Your task to perform on an android device: see creations saved in the google photos Image 0: 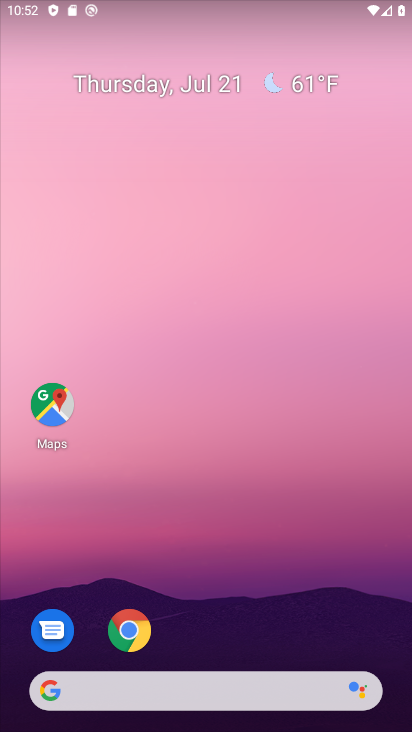
Step 0: drag from (172, 672) to (184, 274)
Your task to perform on an android device: see creations saved in the google photos Image 1: 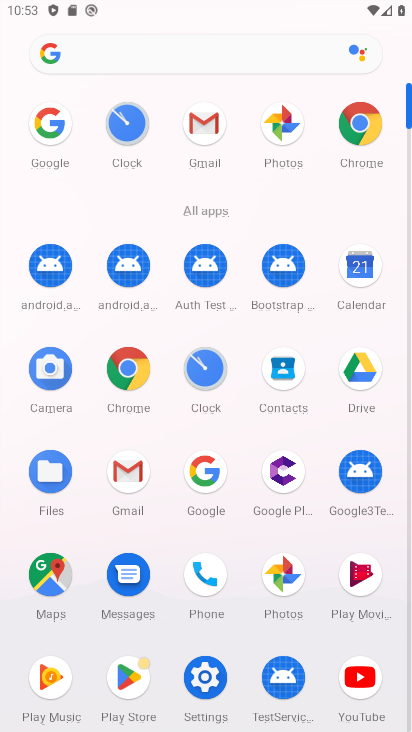
Step 1: click (262, 576)
Your task to perform on an android device: see creations saved in the google photos Image 2: 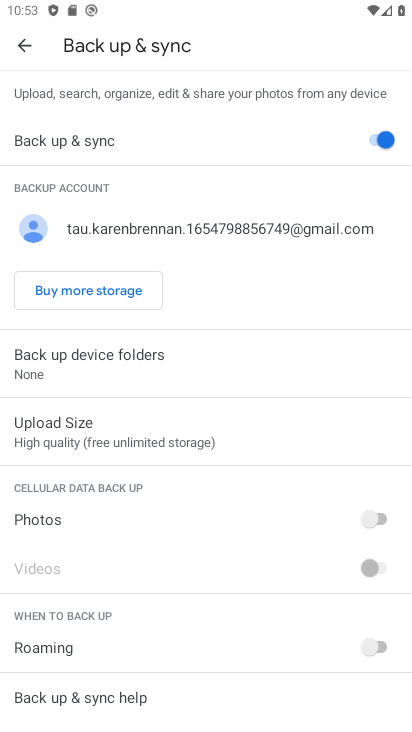
Step 2: click (22, 43)
Your task to perform on an android device: see creations saved in the google photos Image 3: 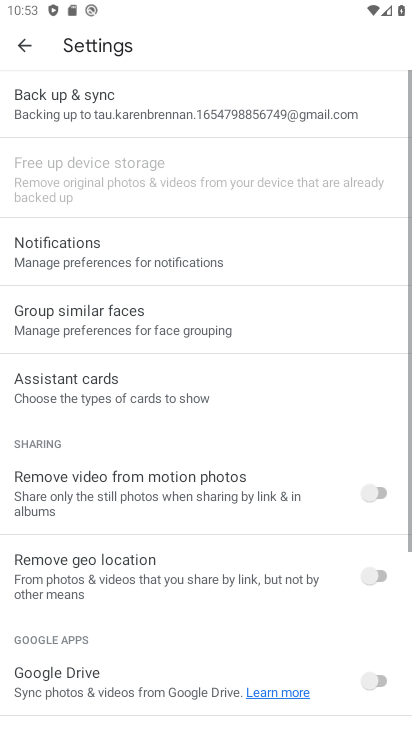
Step 3: click (21, 45)
Your task to perform on an android device: see creations saved in the google photos Image 4: 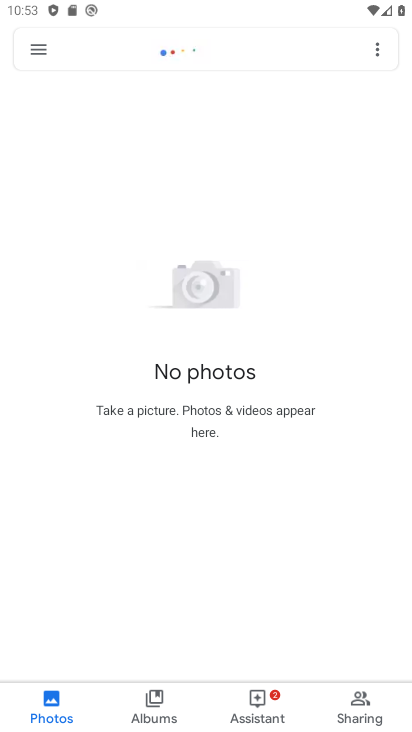
Step 4: click (139, 686)
Your task to perform on an android device: see creations saved in the google photos Image 5: 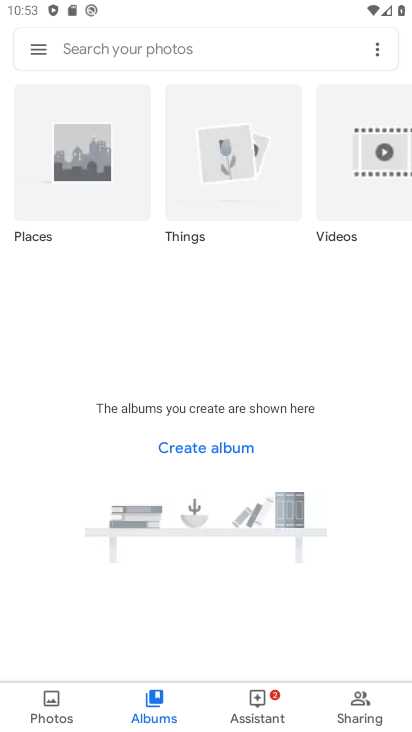
Step 5: click (88, 196)
Your task to perform on an android device: see creations saved in the google photos Image 6: 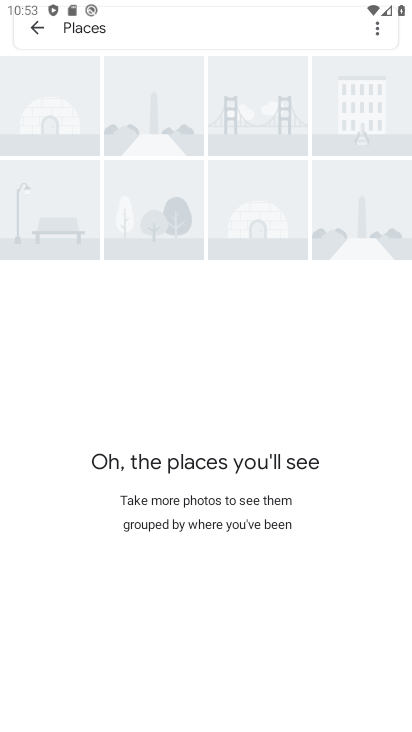
Step 6: task complete